Your task to perform on an android device: turn on data saver in the chrome app Image 0: 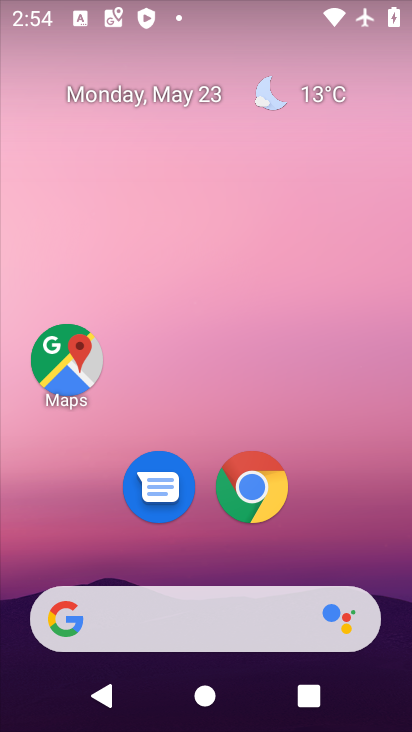
Step 0: click (258, 481)
Your task to perform on an android device: turn on data saver in the chrome app Image 1: 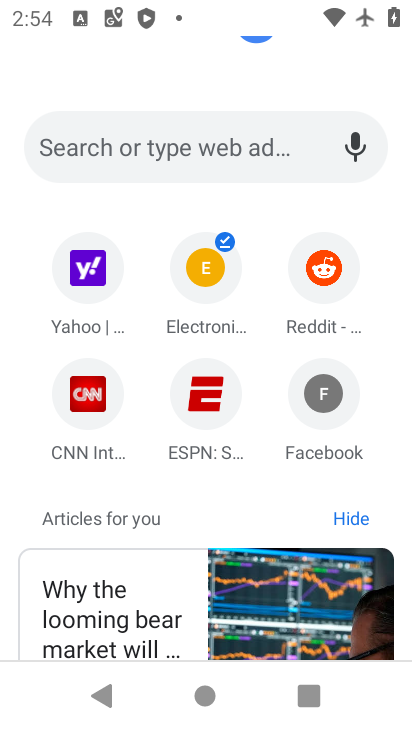
Step 1: drag from (334, 114) to (337, 536)
Your task to perform on an android device: turn on data saver in the chrome app Image 2: 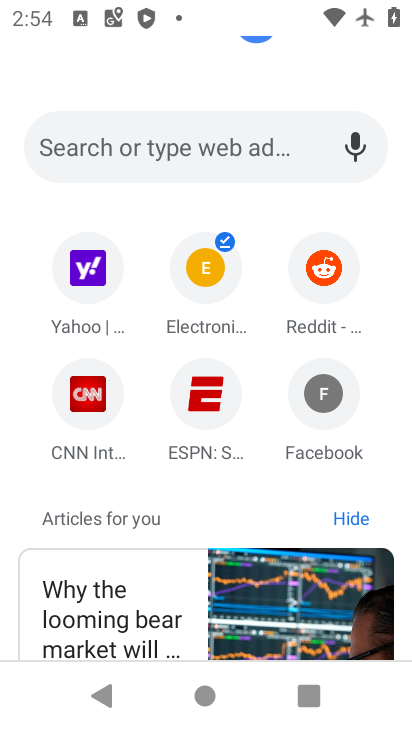
Step 2: drag from (388, 98) to (366, 484)
Your task to perform on an android device: turn on data saver in the chrome app Image 3: 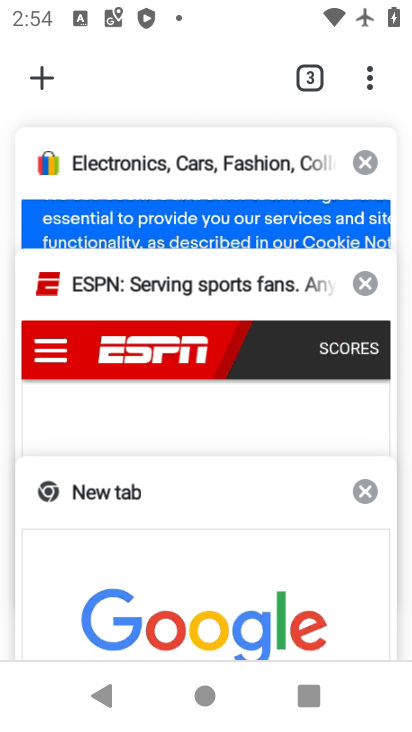
Step 3: click (370, 78)
Your task to perform on an android device: turn on data saver in the chrome app Image 4: 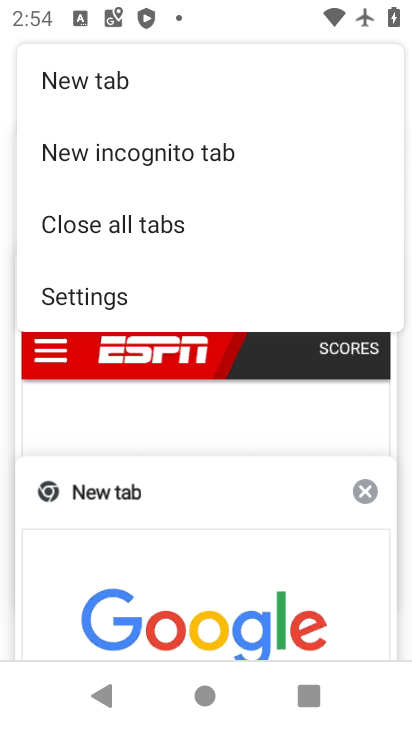
Step 4: click (78, 293)
Your task to perform on an android device: turn on data saver in the chrome app Image 5: 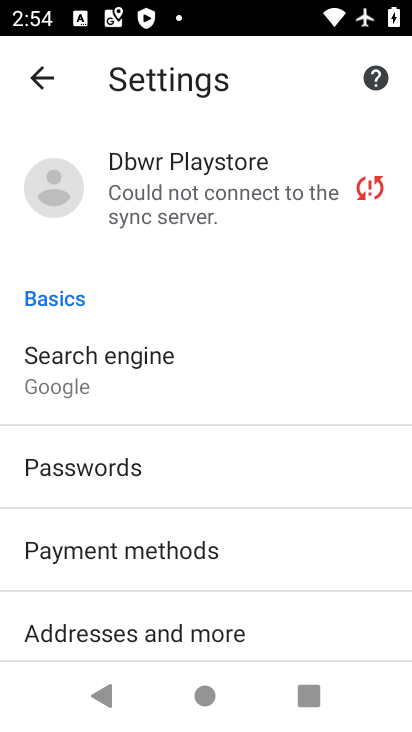
Step 5: drag from (201, 631) to (191, 104)
Your task to perform on an android device: turn on data saver in the chrome app Image 6: 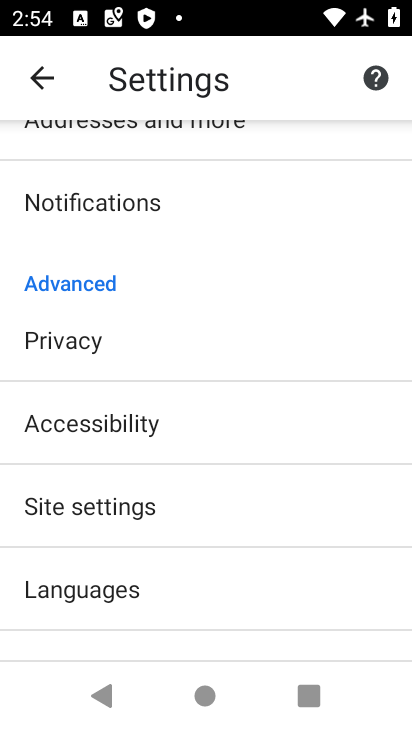
Step 6: drag from (180, 548) to (176, 192)
Your task to perform on an android device: turn on data saver in the chrome app Image 7: 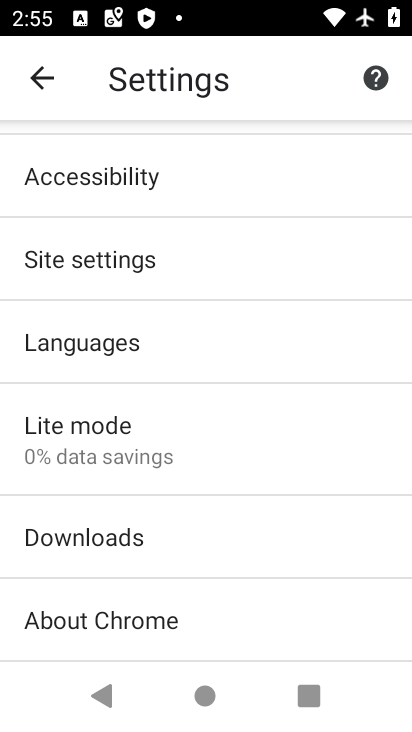
Step 7: click (56, 436)
Your task to perform on an android device: turn on data saver in the chrome app Image 8: 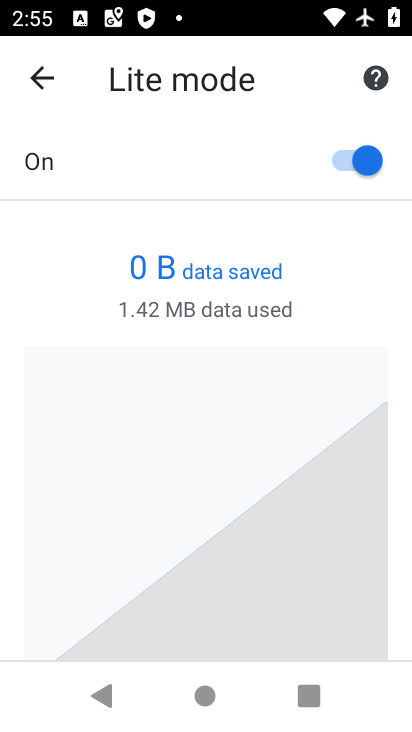
Step 8: task complete